Your task to perform on an android device: set an alarm Image 0: 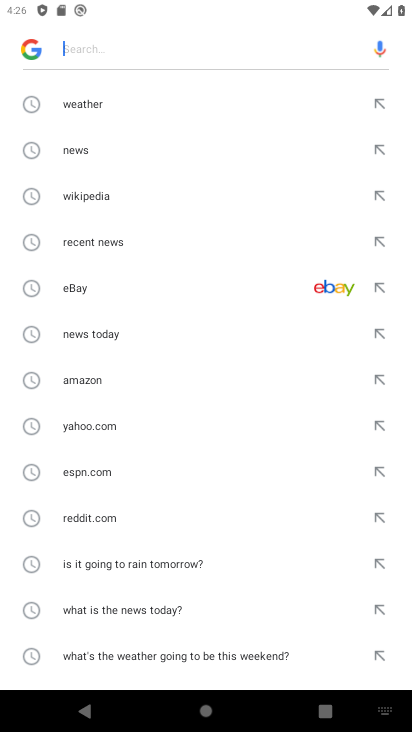
Step 0: press home button
Your task to perform on an android device: set an alarm Image 1: 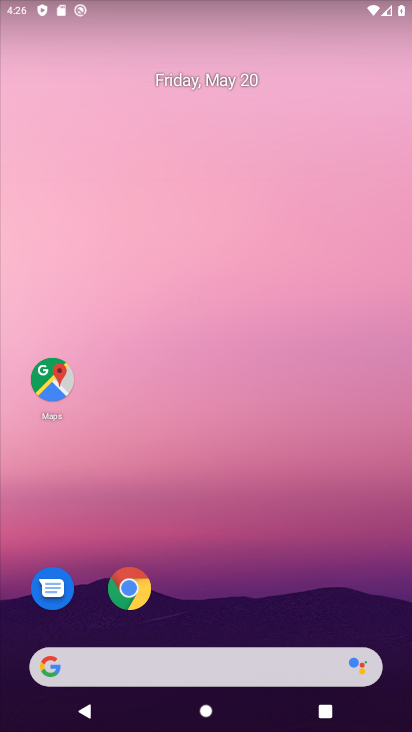
Step 1: drag from (265, 584) to (261, 62)
Your task to perform on an android device: set an alarm Image 2: 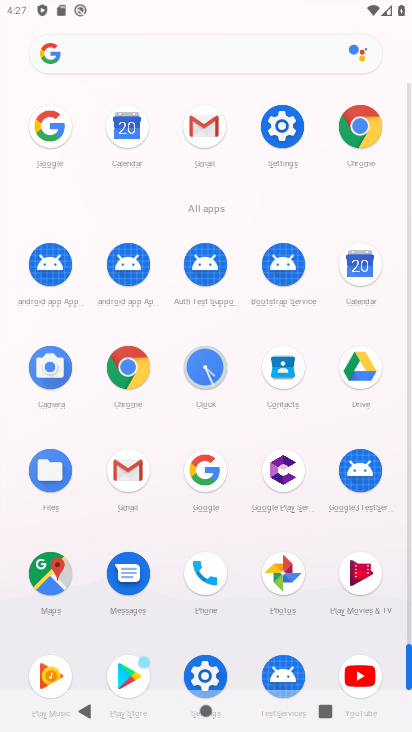
Step 2: click (204, 372)
Your task to perform on an android device: set an alarm Image 3: 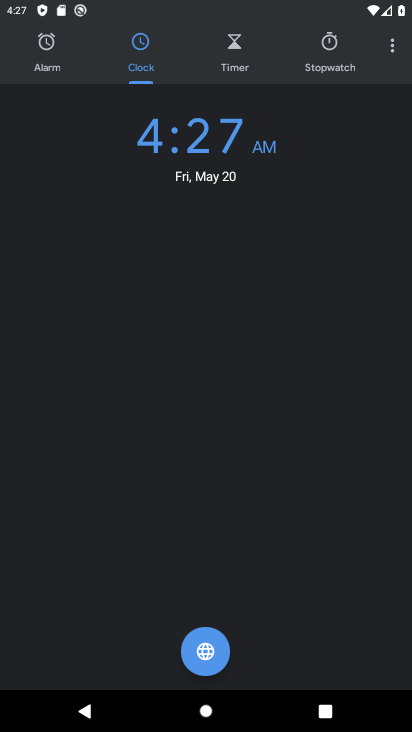
Step 3: click (37, 65)
Your task to perform on an android device: set an alarm Image 4: 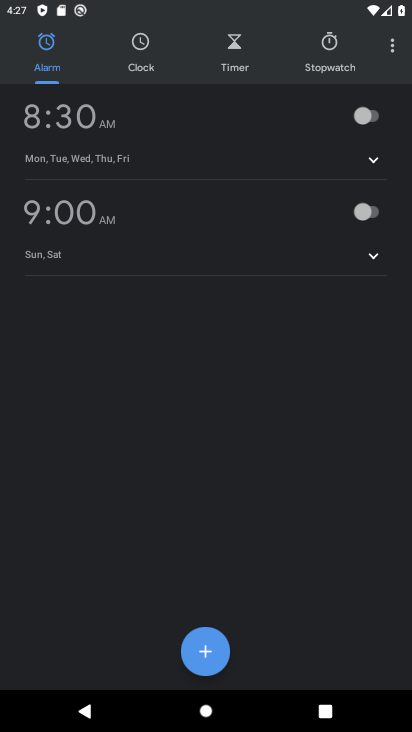
Step 4: click (121, 147)
Your task to perform on an android device: set an alarm Image 5: 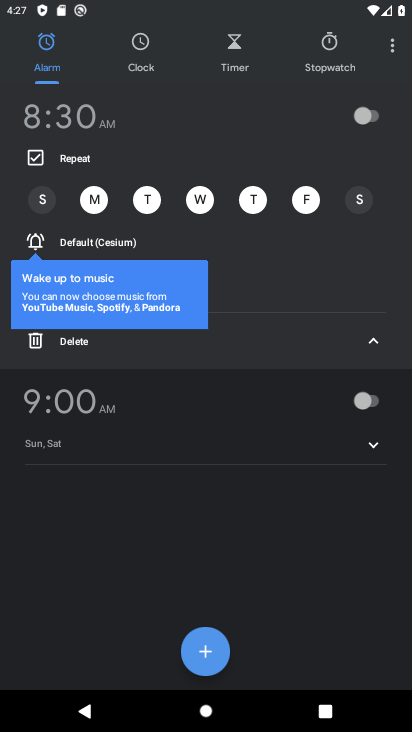
Step 5: click (67, 123)
Your task to perform on an android device: set an alarm Image 6: 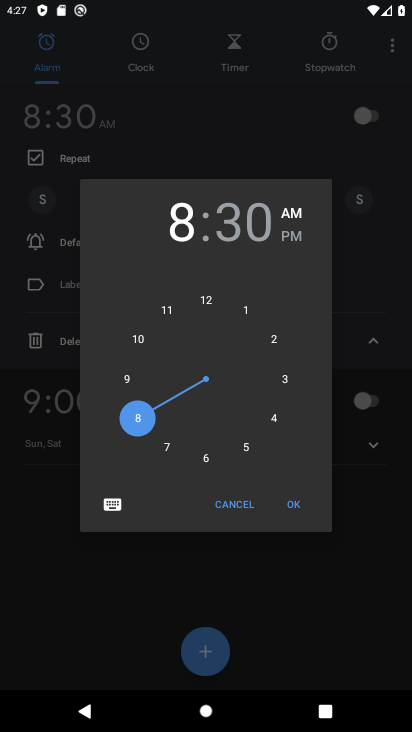
Step 6: click (207, 460)
Your task to perform on an android device: set an alarm Image 7: 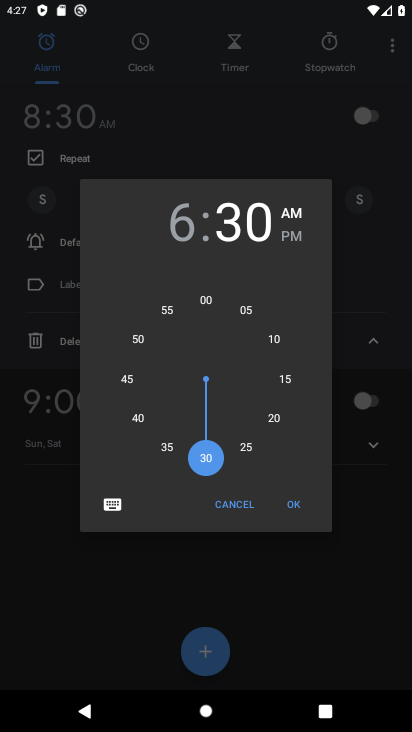
Step 7: click (254, 447)
Your task to perform on an android device: set an alarm Image 8: 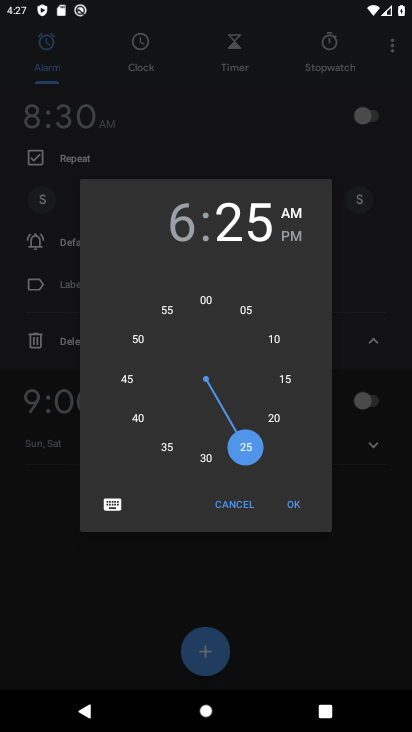
Step 8: click (300, 507)
Your task to perform on an android device: set an alarm Image 9: 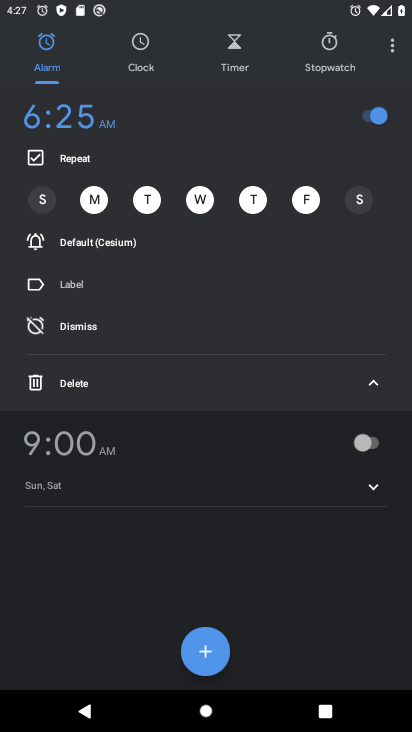
Step 9: task complete